Your task to perform on an android device: turn off wifi Image 0: 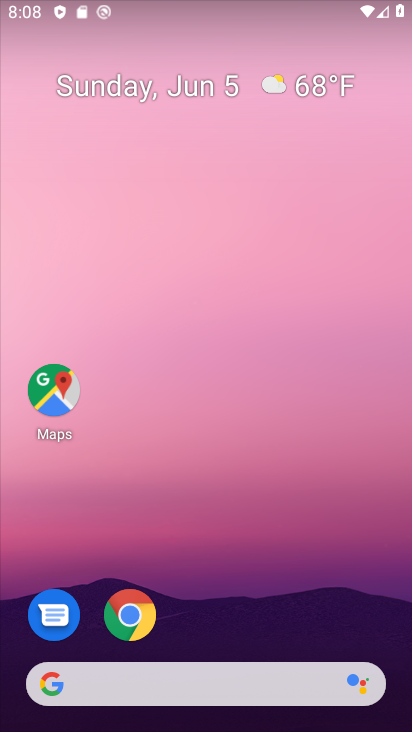
Step 0: drag from (213, 662) to (213, 262)
Your task to perform on an android device: turn off wifi Image 1: 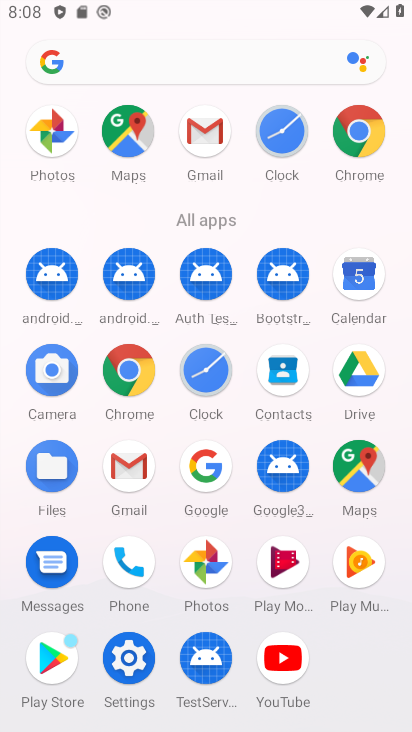
Step 1: click (138, 648)
Your task to perform on an android device: turn off wifi Image 2: 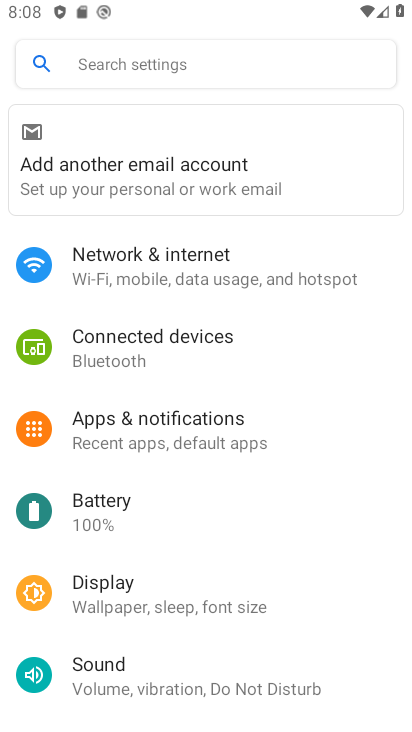
Step 2: click (169, 257)
Your task to perform on an android device: turn off wifi Image 3: 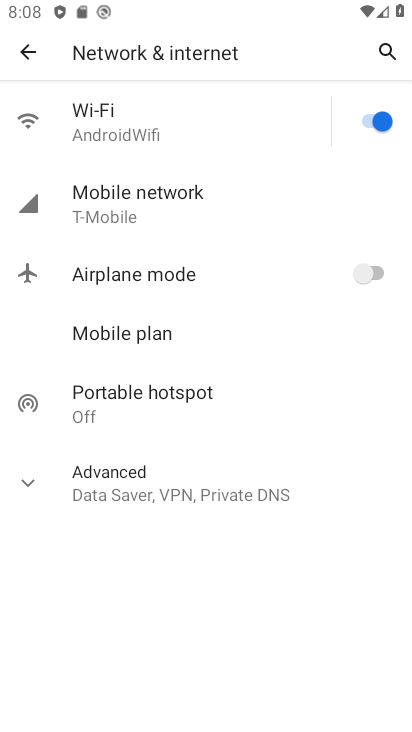
Step 3: click (393, 108)
Your task to perform on an android device: turn off wifi Image 4: 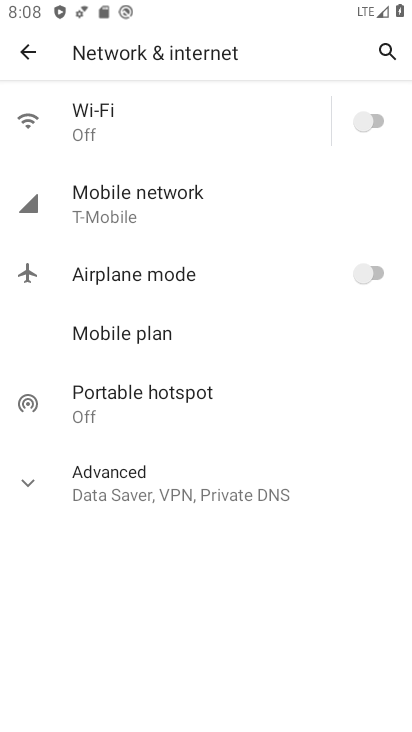
Step 4: task complete